Your task to perform on an android device: change notifications settings Image 0: 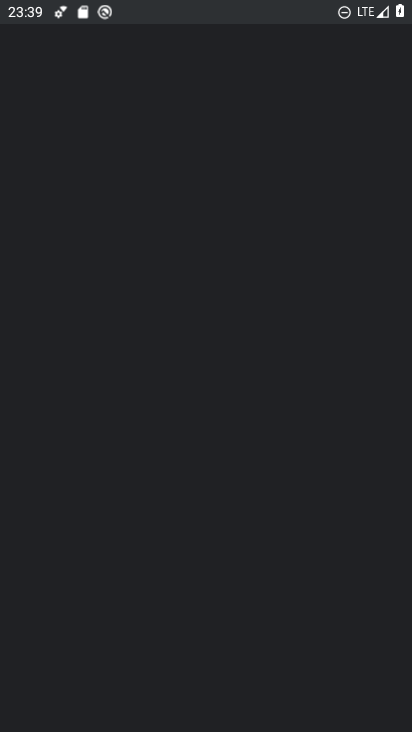
Step 0: drag from (213, 643) to (217, 138)
Your task to perform on an android device: change notifications settings Image 1: 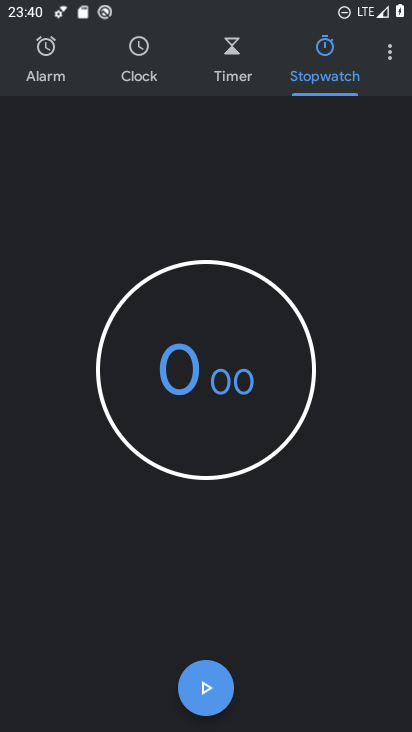
Step 1: press home button
Your task to perform on an android device: change notifications settings Image 2: 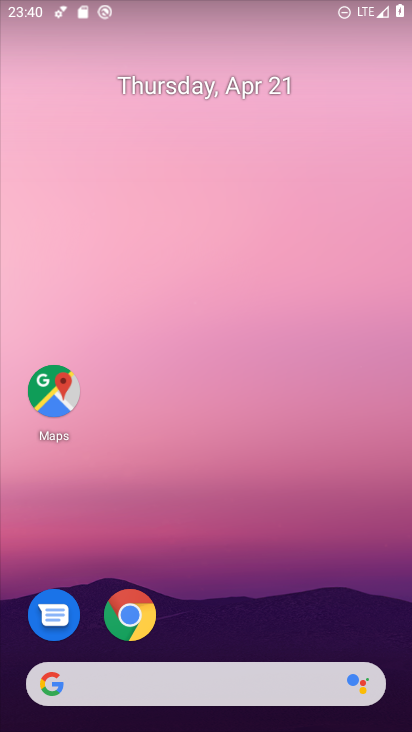
Step 2: drag from (212, 608) to (263, 24)
Your task to perform on an android device: change notifications settings Image 3: 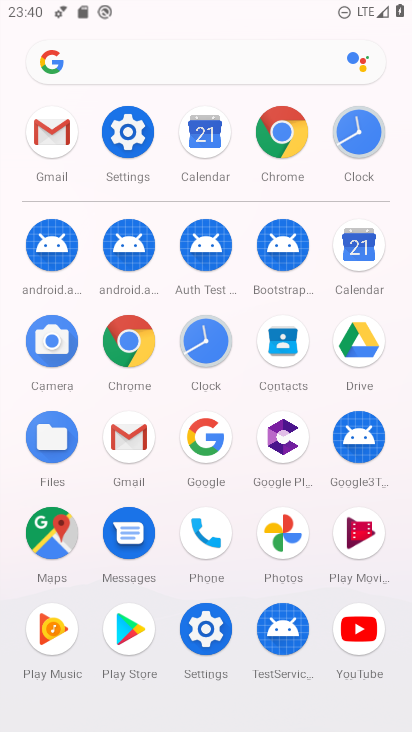
Step 3: click (128, 126)
Your task to perform on an android device: change notifications settings Image 4: 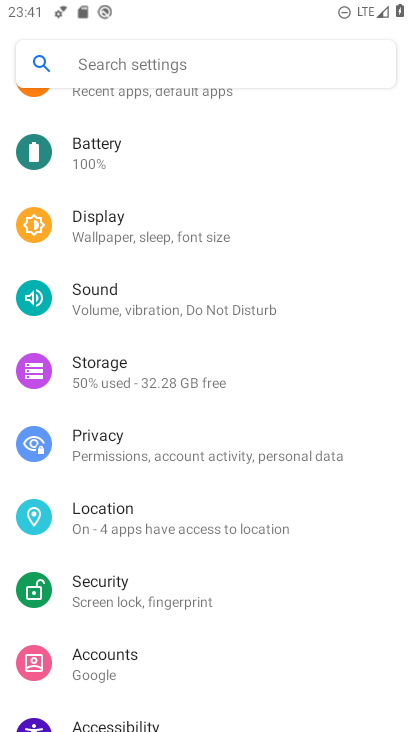
Step 4: drag from (150, 196) to (160, 521)
Your task to perform on an android device: change notifications settings Image 5: 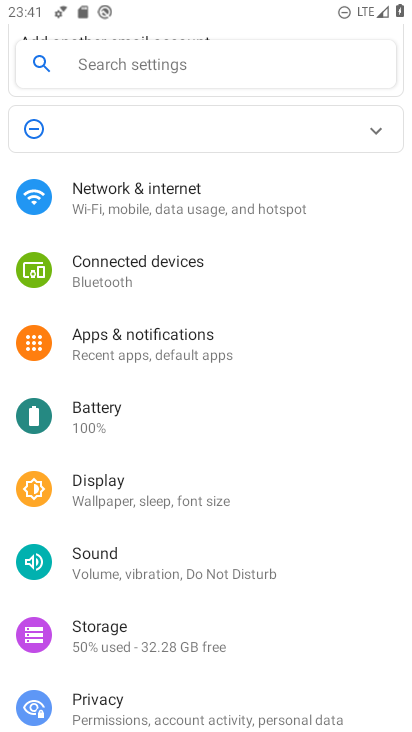
Step 5: click (226, 336)
Your task to perform on an android device: change notifications settings Image 6: 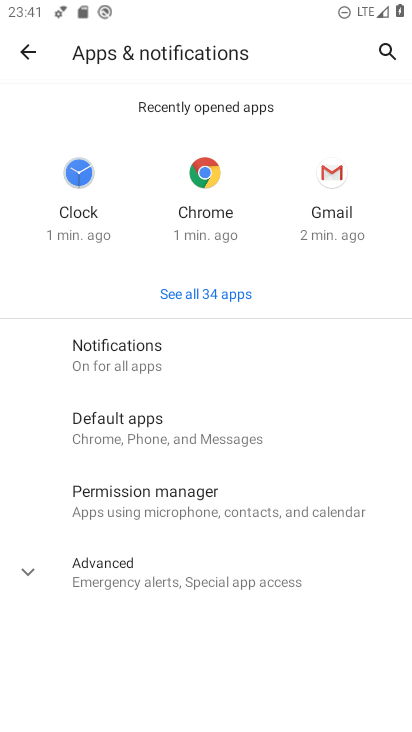
Step 6: click (146, 355)
Your task to perform on an android device: change notifications settings Image 7: 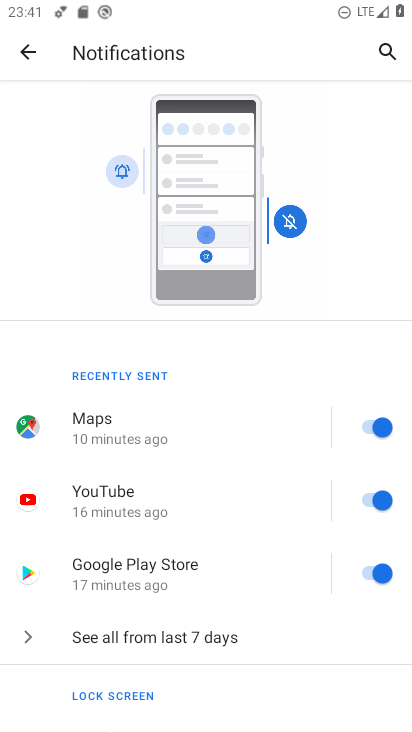
Step 7: drag from (159, 630) to (155, 395)
Your task to perform on an android device: change notifications settings Image 8: 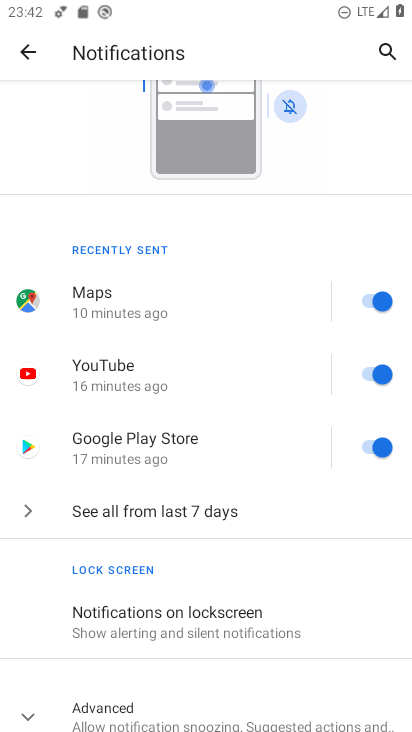
Step 8: click (377, 297)
Your task to perform on an android device: change notifications settings Image 9: 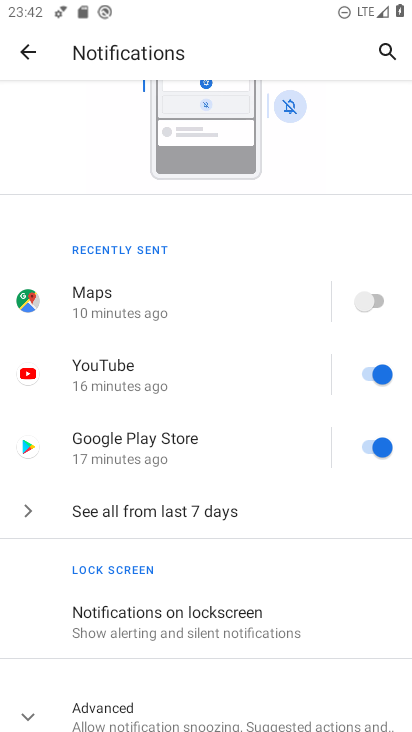
Step 9: click (375, 371)
Your task to perform on an android device: change notifications settings Image 10: 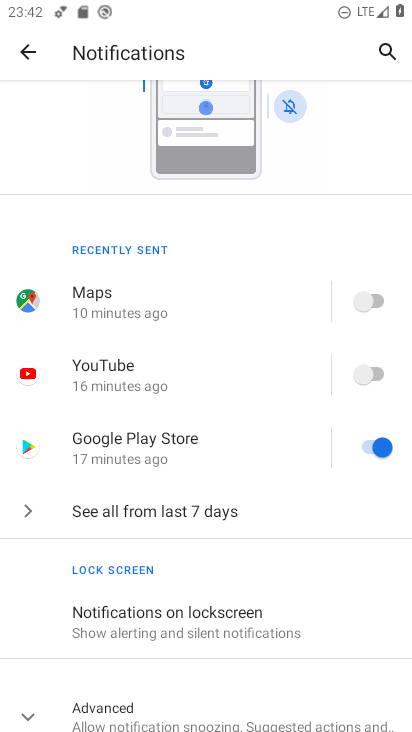
Step 10: click (368, 447)
Your task to perform on an android device: change notifications settings Image 11: 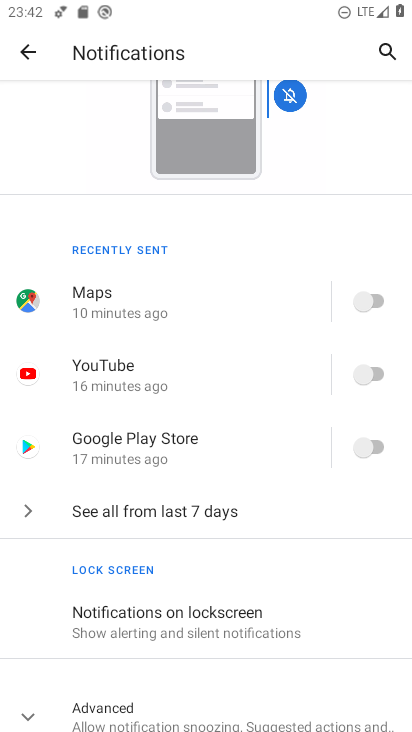
Step 11: click (183, 629)
Your task to perform on an android device: change notifications settings Image 12: 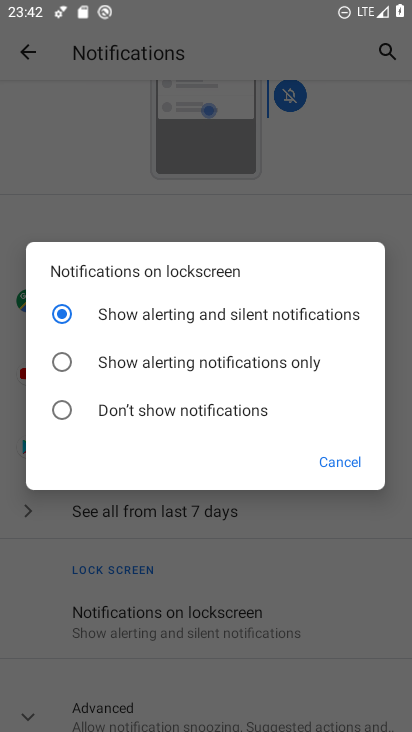
Step 12: click (60, 361)
Your task to perform on an android device: change notifications settings Image 13: 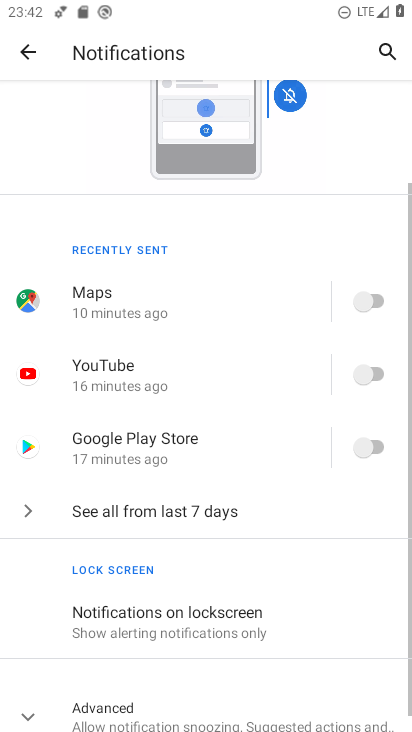
Step 13: task complete